Your task to perform on an android device: Open Chrome and go to settings Image 0: 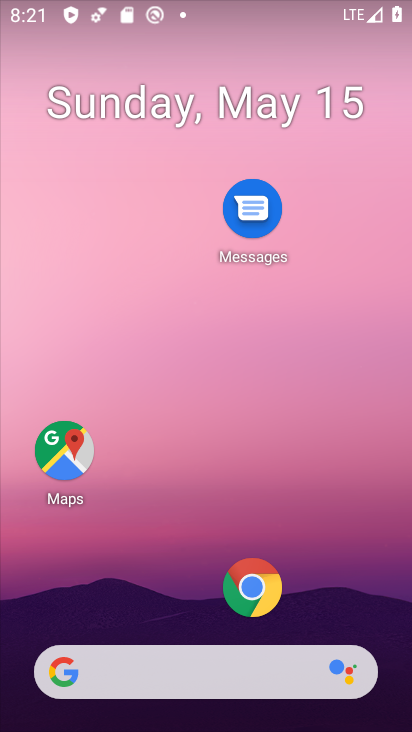
Step 0: click (246, 584)
Your task to perform on an android device: Open Chrome and go to settings Image 1: 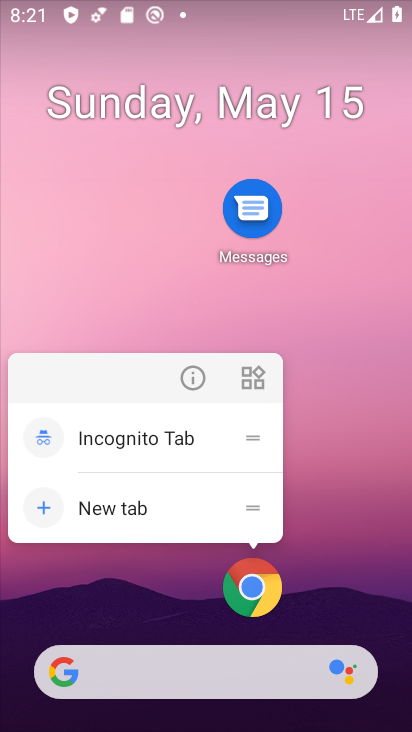
Step 1: click (247, 589)
Your task to perform on an android device: Open Chrome and go to settings Image 2: 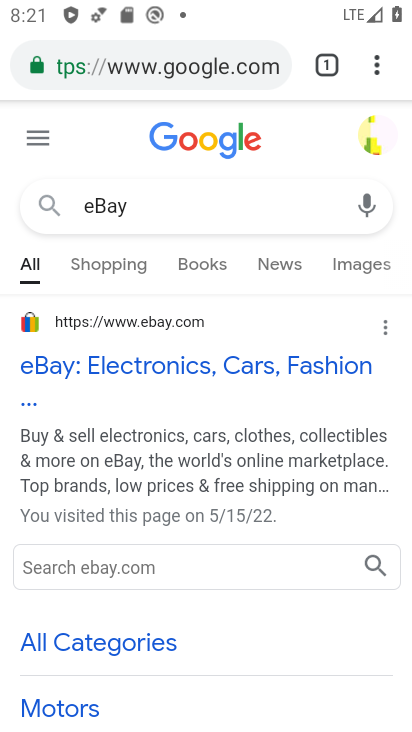
Step 2: click (380, 66)
Your task to perform on an android device: Open Chrome and go to settings Image 3: 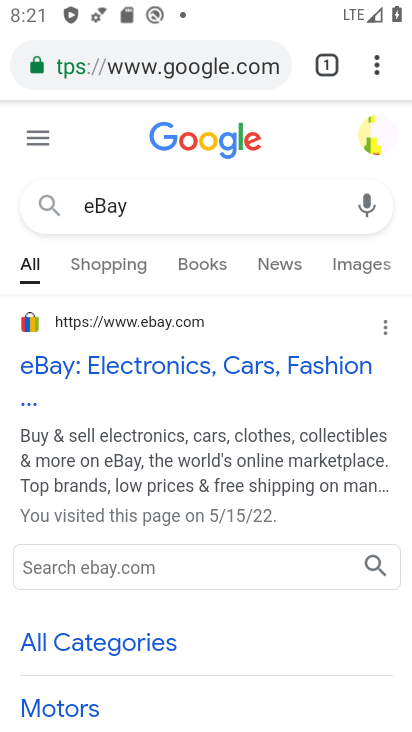
Step 3: click (378, 65)
Your task to perform on an android device: Open Chrome and go to settings Image 4: 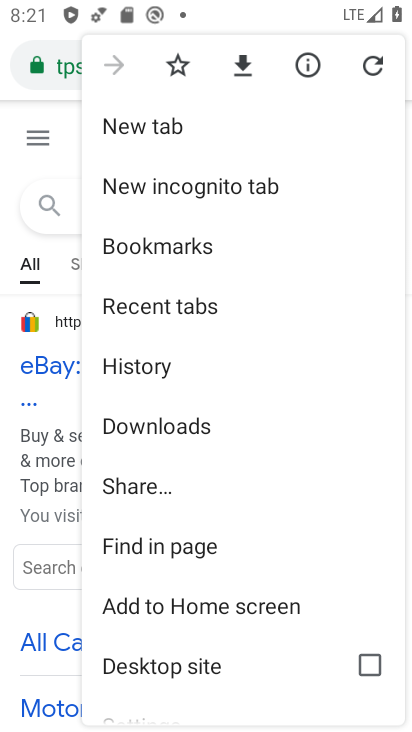
Step 4: drag from (180, 577) to (213, 274)
Your task to perform on an android device: Open Chrome and go to settings Image 5: 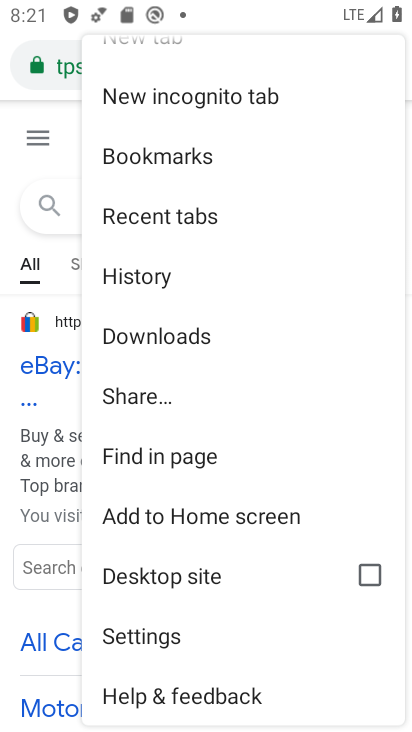
Step 5: click (161, 643)
Your task to perform on an android device: Open Chrome and go to settings Image 6: 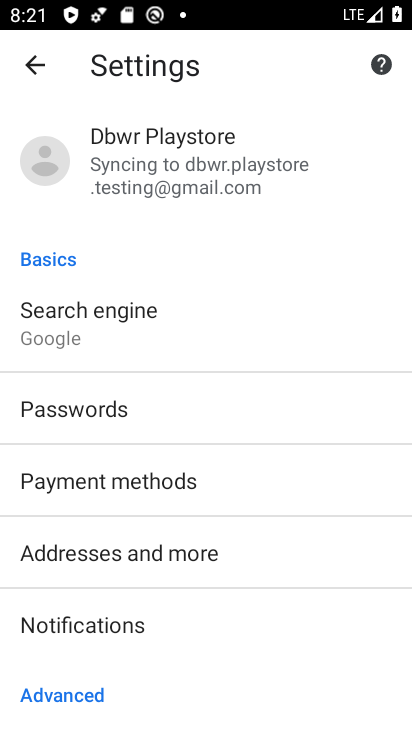
Step 6: task complete